Your task to perform on an android device: turn off notifications in google photos Image 0: 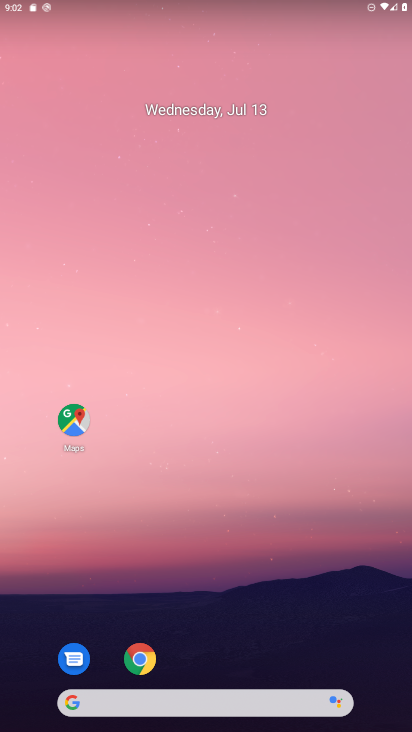
Step 0: drag from (232, 640) to (210, 92)
Your task to perform on an android device: turn off notifications in google photos Image 1: 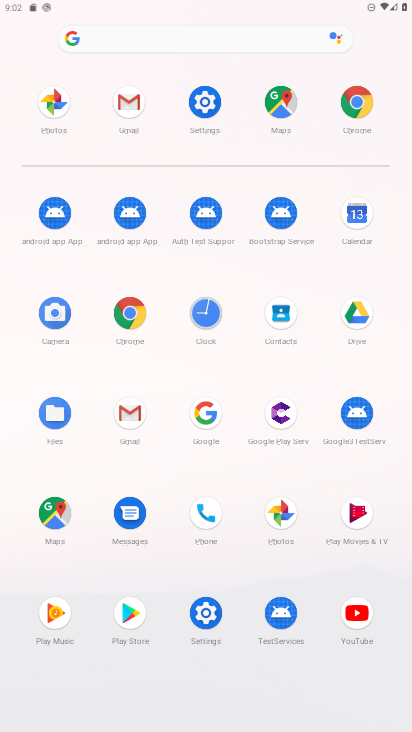
Step 1: click (280, 515)
Your task to perform on an android device: turn off notifications in google photos Image 2: 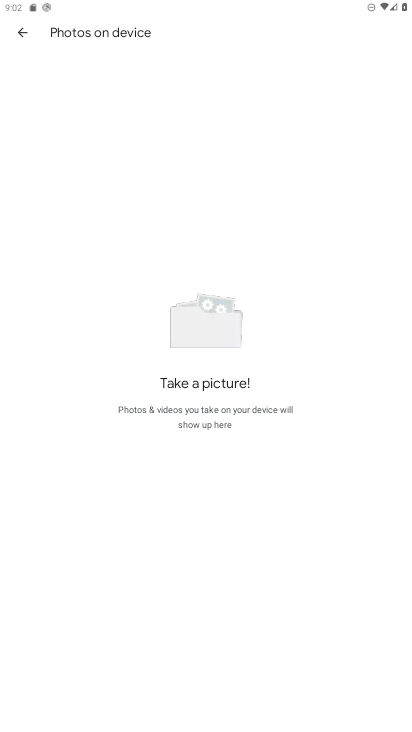
Step 2: press back button
Your task to perform on an android device: turn off notifications in google photos Image 3: 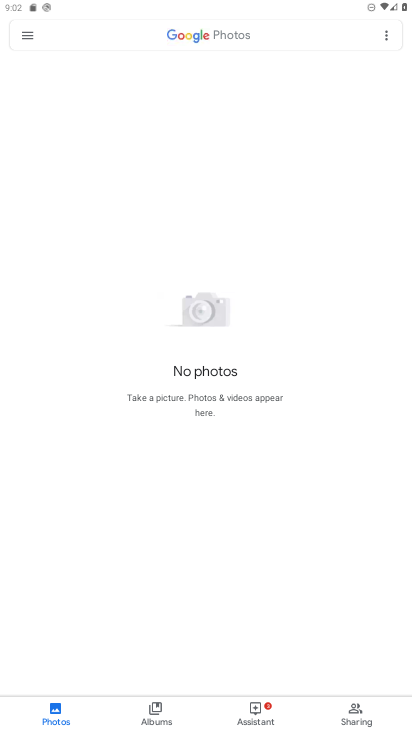
Step 3: click (24, 33)
Your task to perform on an android device: turn off notifications in google photos Image 4: 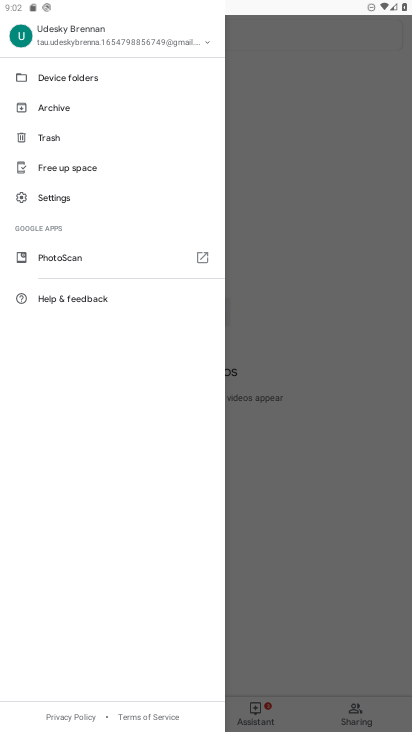
Step 4: click (46, 194)
Your task to perform on an android device: turn off notifications in google photos Image 5: 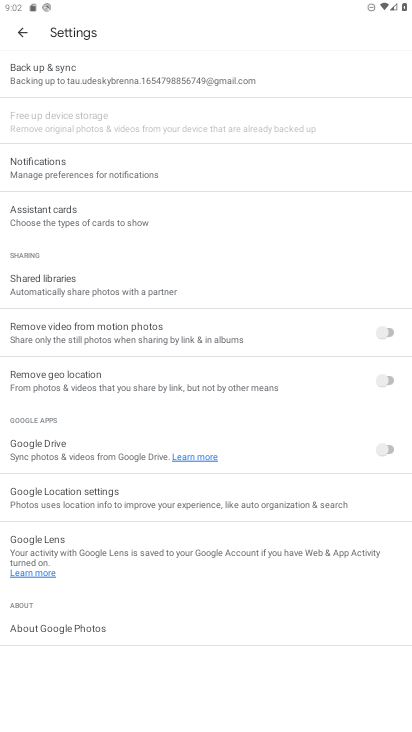
Step 5: click (84, 177)
Your task to perform on an android device: turn off notifications in google photos Image 6: 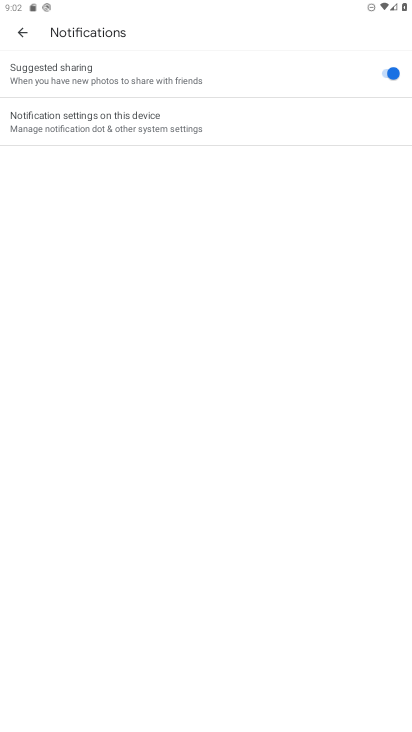
Step 6: click (93, 123)
Your task to perform on an android device: turn off notifications in google photos Image 7: 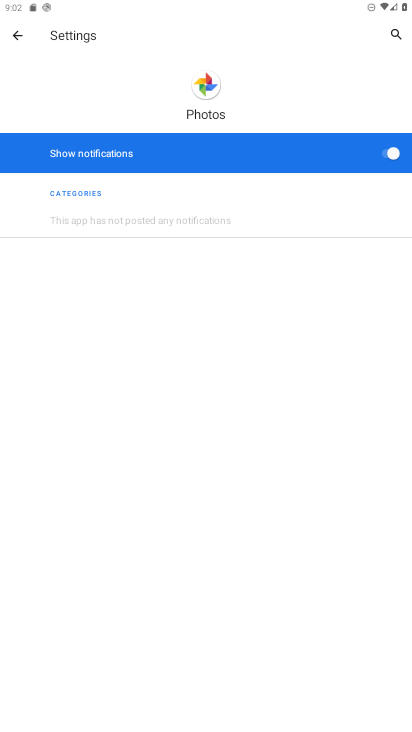
Step 7: click (392, 146)
Your task to perform on an android device: turn off notifications in google photos Image 8: 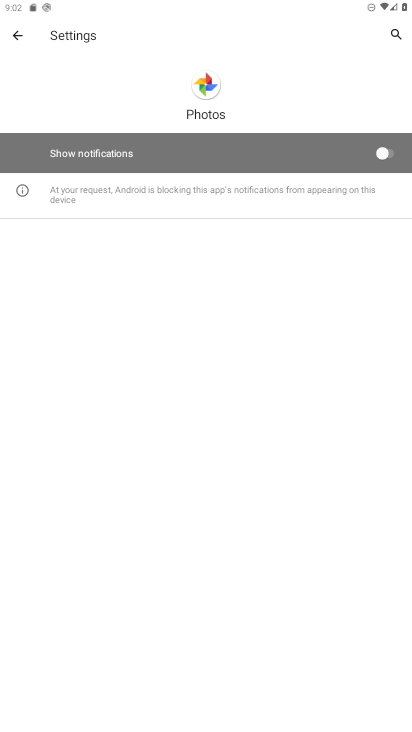
Step 8: task complete